Your task to perform on an android device: allow notifications from all sites in the chrome app Image 0: 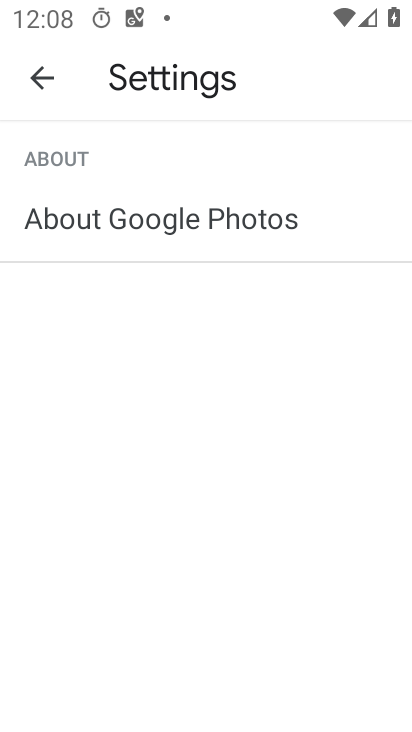
Step 0: press home button
Your task to perform on an android device: allow notifications from all sites in the chrome app Image 1: 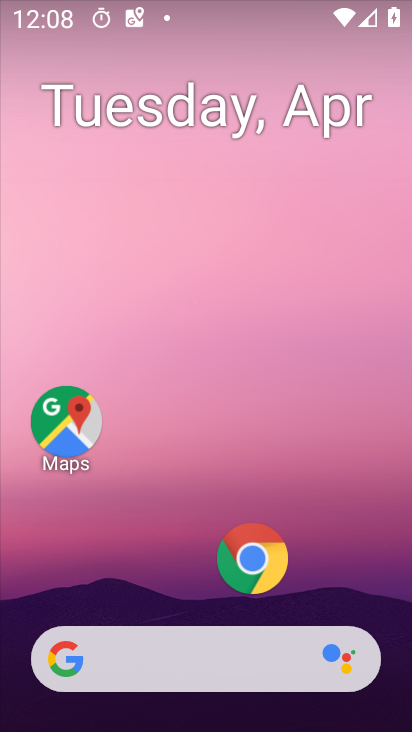
Step 1: click (247, 557)
Your task to perform on an android device: allow notifications from all sites in the chrome app Image 2: 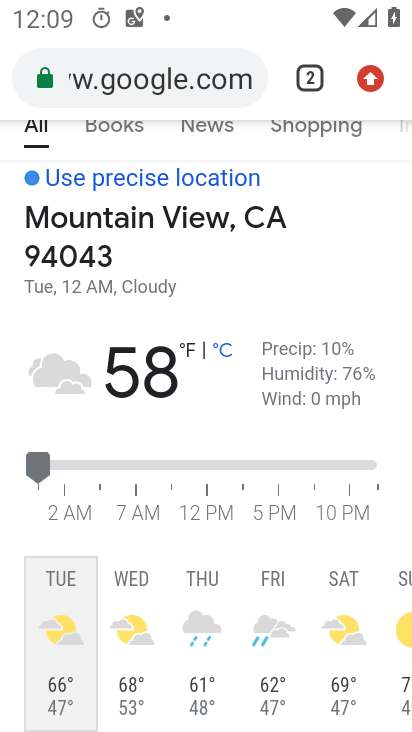
Step 2: click (365, 77)
Your task to perform on an android device: allow notifications from all sites in the chrome app Image 3: 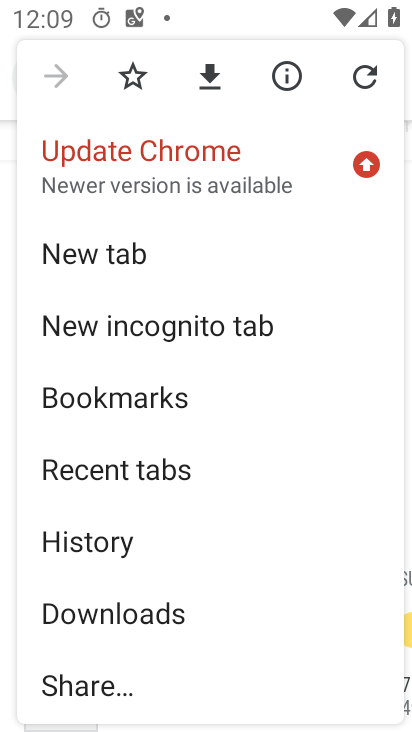
Step 3: drag from (178, 435) to (188, 193)
Your task to perform on an android device: allow notifications from all sites in the chrome app Image 4: 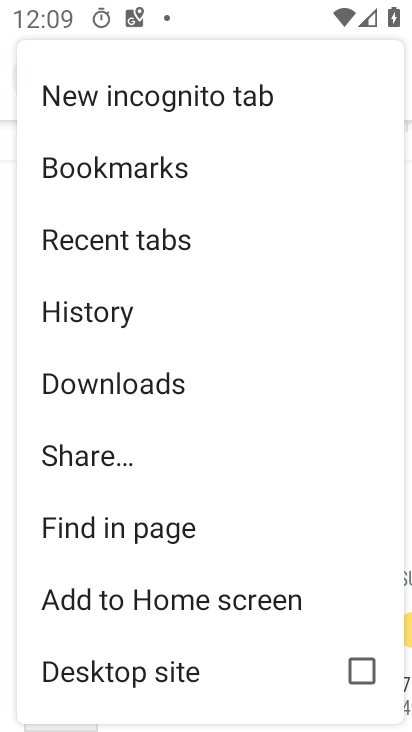
Step 4: drag from (156, 599) to (176, 267)
Your task to perform on an android device: allow notifications from all sites in the chrome app Image 5: 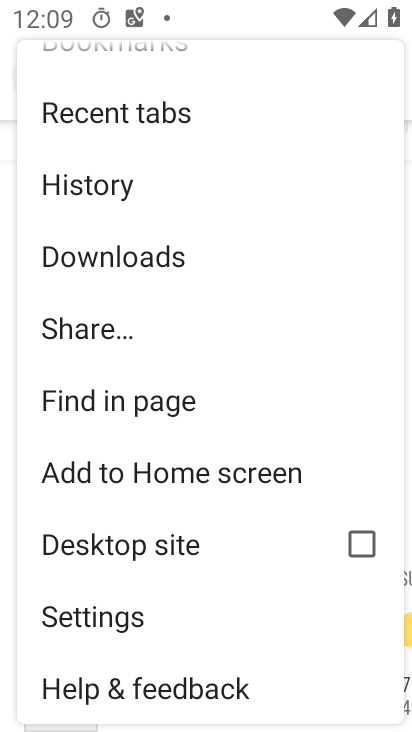
Step 5: drag from (153, 569) to (180, 322)
Your task to perform on an android device: allow notifications from all sites in the chrome app Image 6: 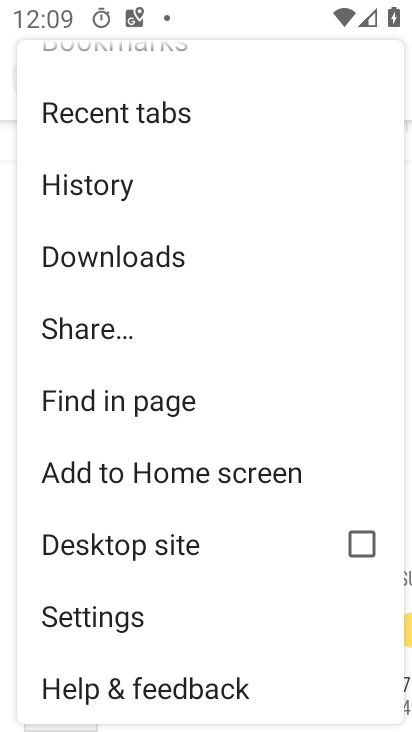
Step 6: drag from (100, 185) to (143, 111)
Your task to perform on an android device: allow notifications from all sites in the chrome app Image 7: 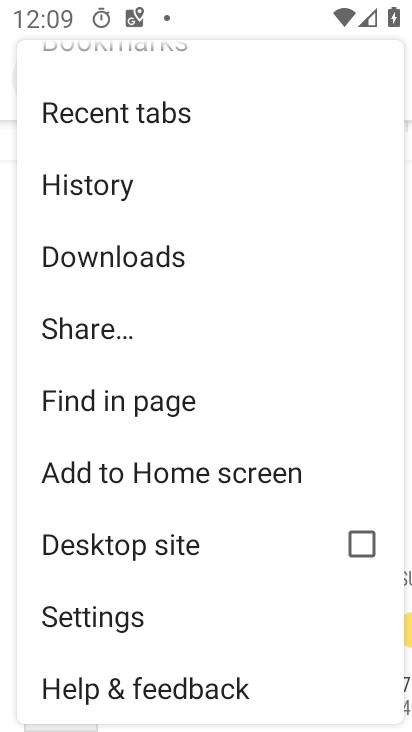
Step 7: click (102, 605)
Your task to perform on an android device: allow notifications from all sites in the chrome app Image 8: 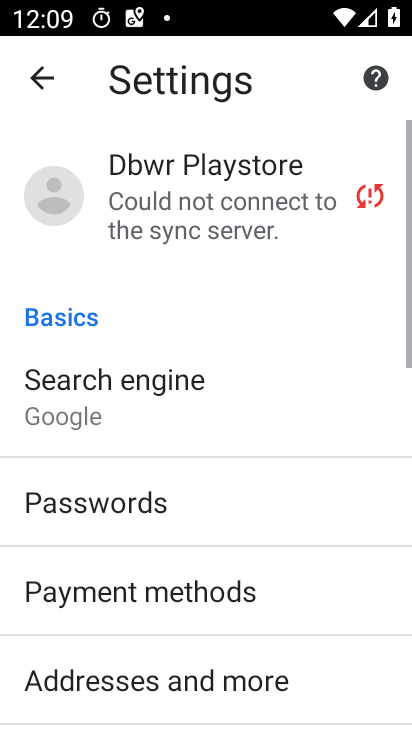
Step 8: drag from (148, 604) to (202, 175)
Your task to perform on an android device: allow notifications from all sites in the chrome app Image 9: 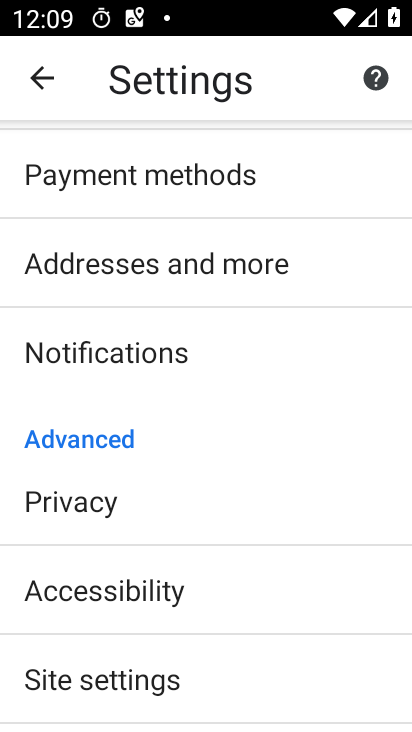
Step 9: click (80, 346)
Your task to perform on an android device: allow notifications from all sites in the chrome app Image 10: 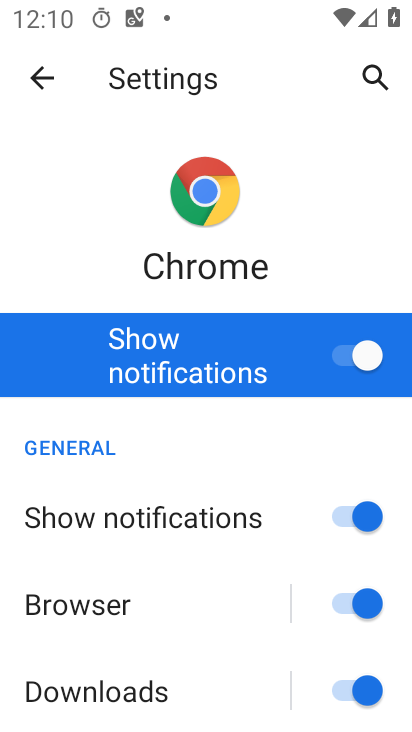
Step 10: task complete